Your task to perform on an android device: Open the phone app and click the voicemail tab. Image 0: 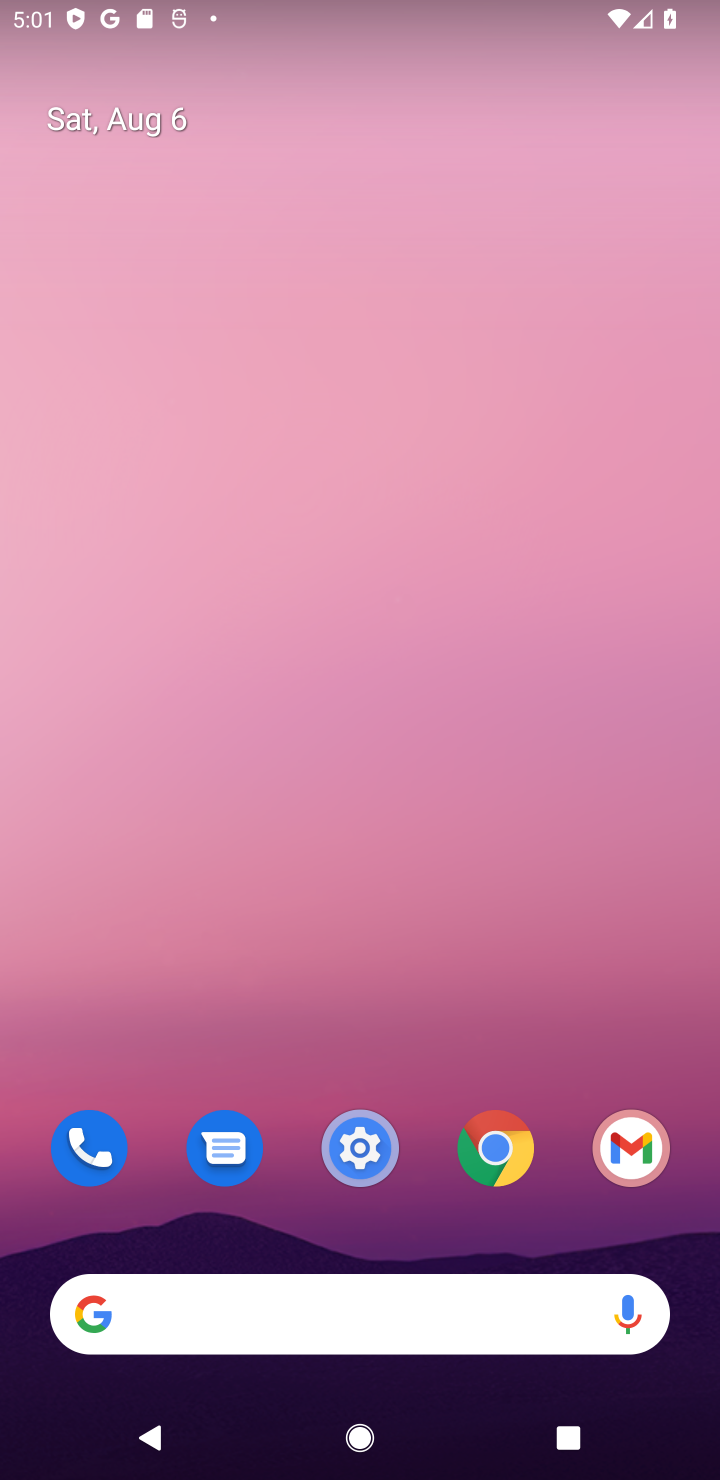
Step 0: drag from (322, 1219) to (215, 3)
Your task to perform on an android device: Open the phone app and click the voicemail tab. Image 1: 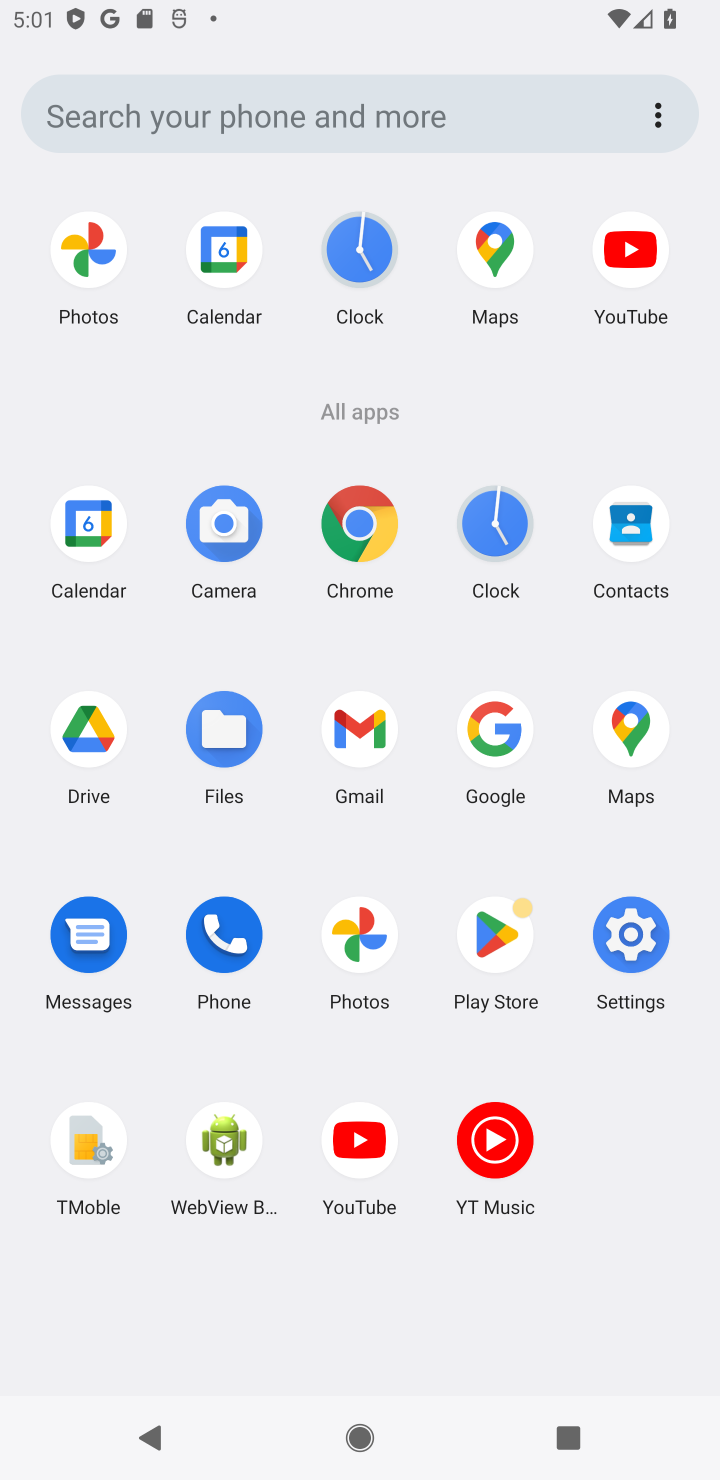
Step 1: click (197, 936)
Your task to perform on an android device: Open the phone app and click the voicemail tab. Image 2: 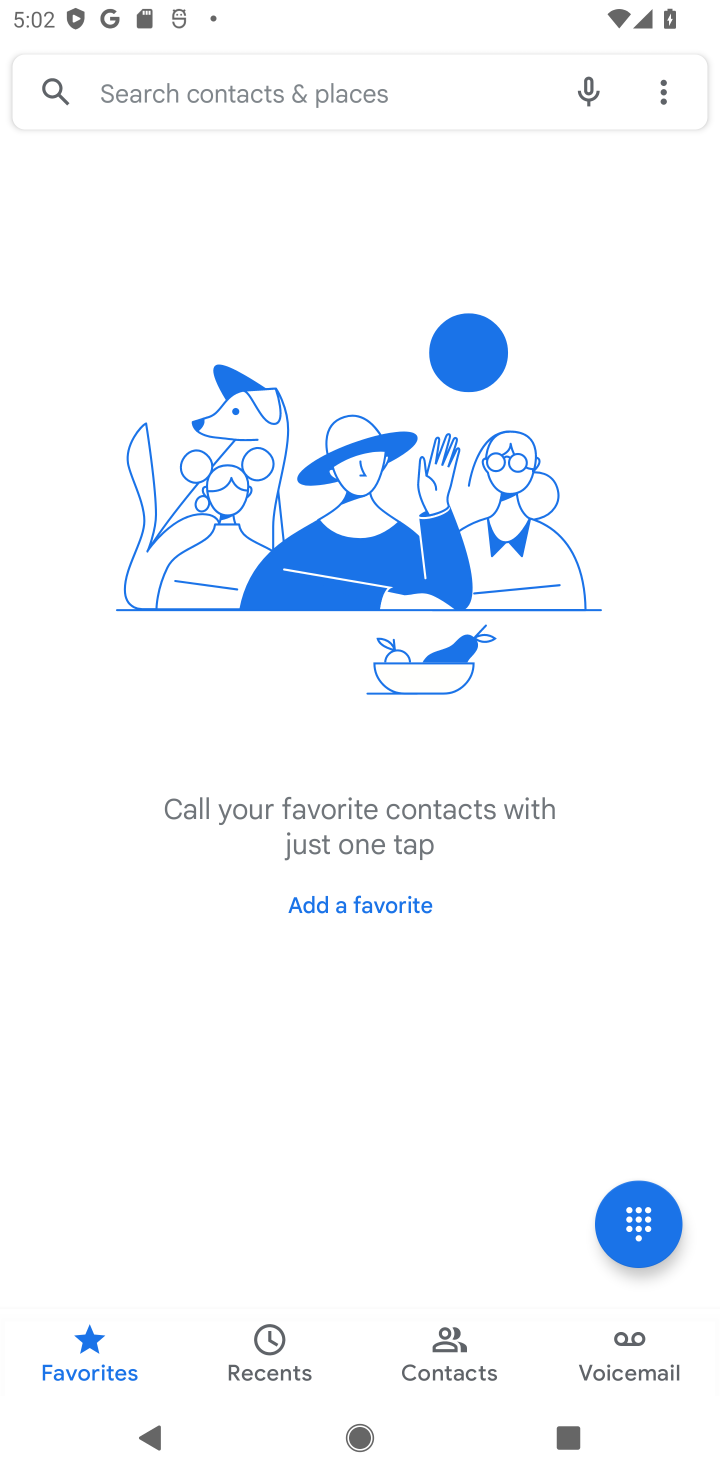
Step 2: click (615, 1362)
Your task to perform on an android device: Open the phone app and click the voicemail tab. Image 3: 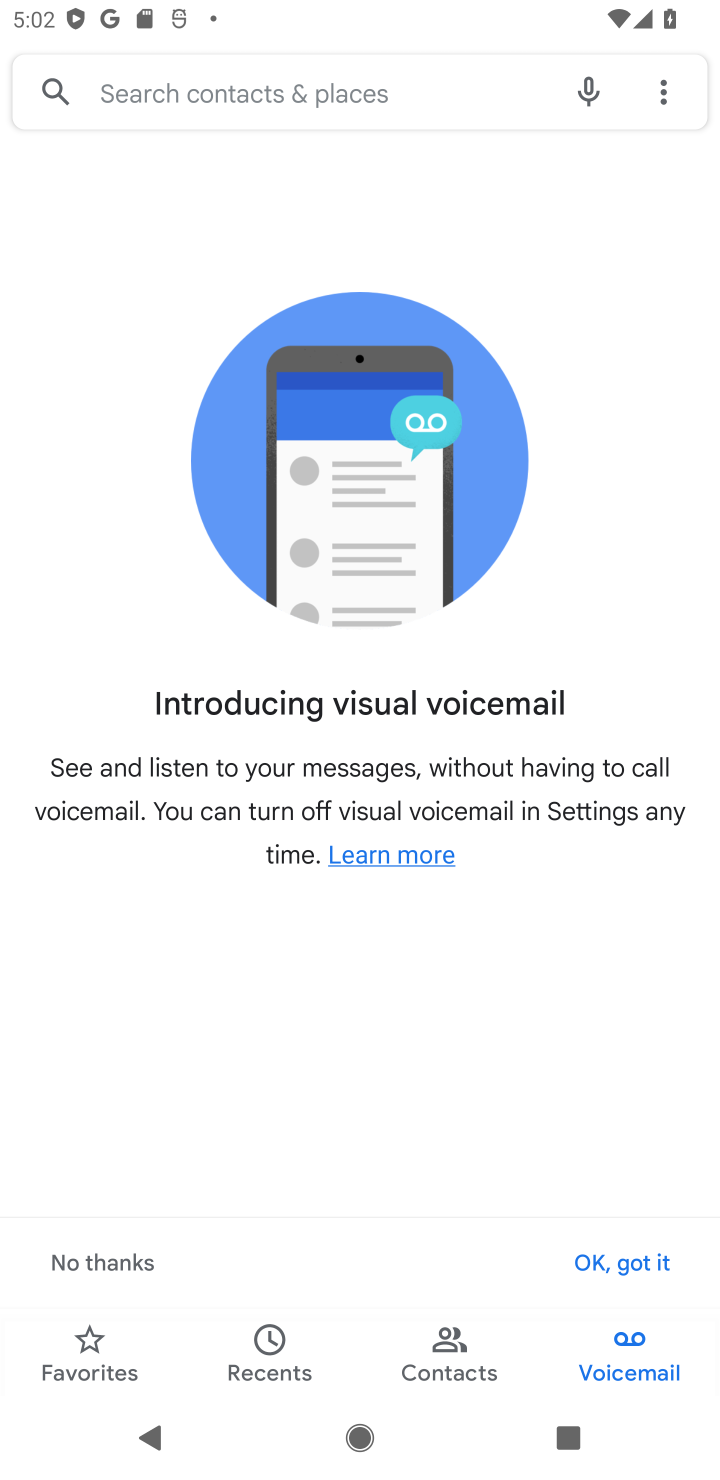
Step 3: task complete